Your task to perform on an android device: stop showing notifications on the lock screen Image 0: 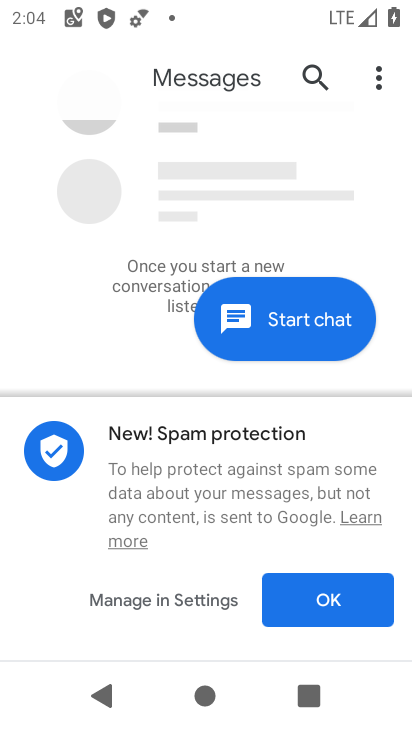
Step 0: press home button
Your task to perform on an android device: stop showing notifications on the lock screen Image 1: 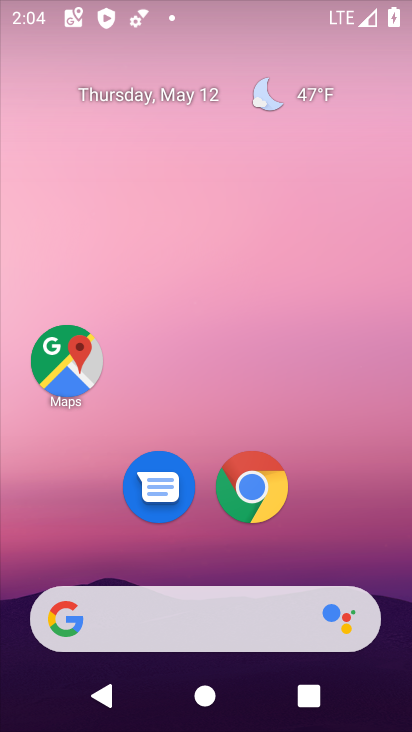
Step 1: drag from (334, 566) to (256, 117)
Your task to perform on an android device: stop showing notifications on the lock screen Image 2: 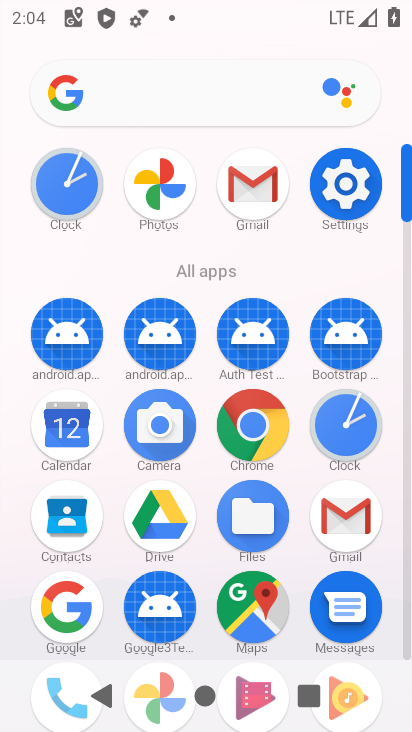
Step 2: click (352, 181)
Your task to perform on an android device: stop showing notifications on the lock screen Image 3: 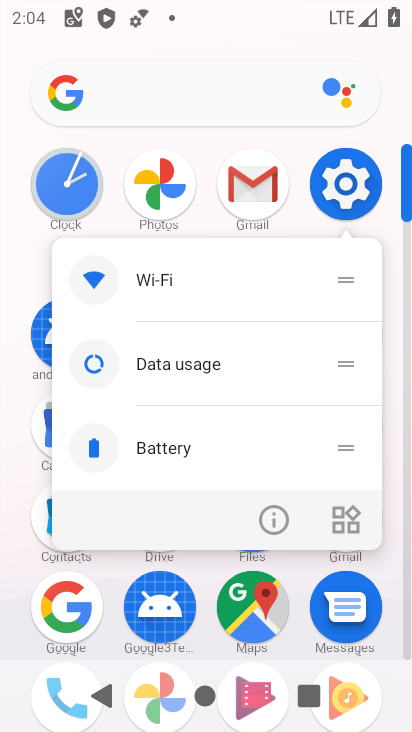
Step 3: click (336, 179)
Your task to perform on an android device: stop showing notifications on the lock screen Image 4: 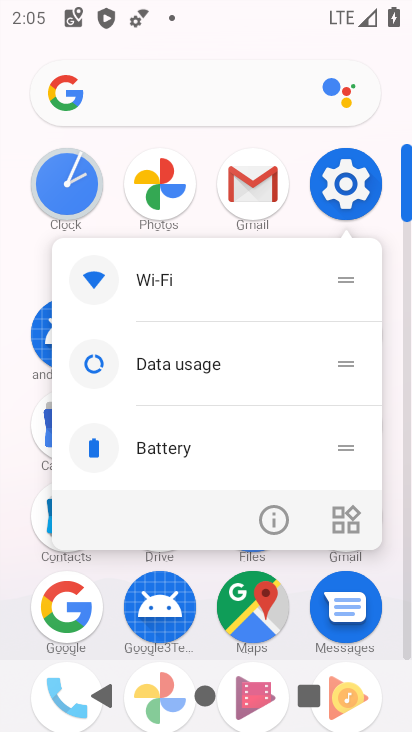
Step 4: click (342, 181)
Your task to perform on an android device: stop showing notifications on the lock screen Image 5: 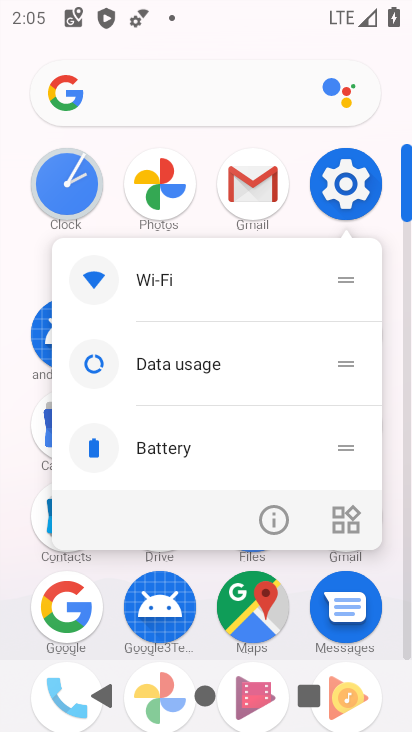
Step 5: click (289, 154)
Your task to perform on an android device: stop showing notifications on the lock screen Image 6: 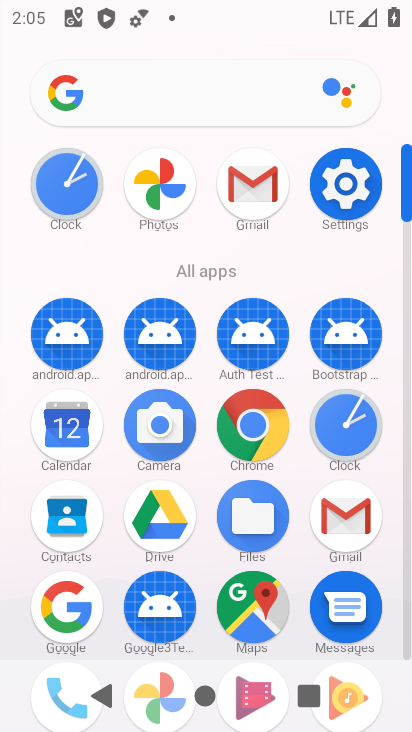
Step 6: click (347, 174)
Your task to perform on an android device: stop showing notifications on the lock screen Image 7: 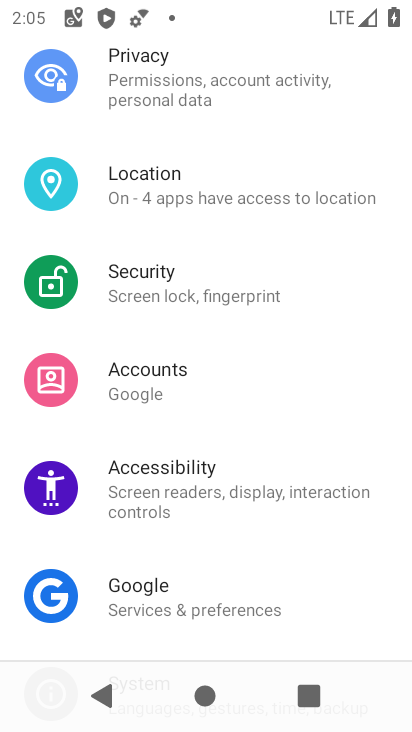
Step 7: drag from (196, 386) to (138, 216)
Your task to perform on an android device: stop showing notifications on the lock screen Image 8: 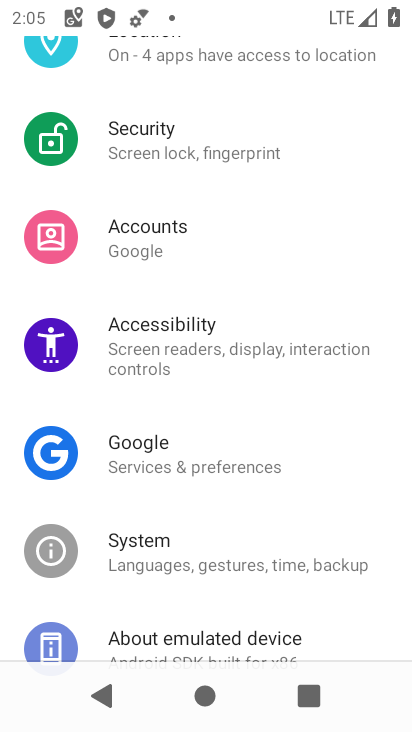
Step 8: drag from (131, 217) to (97, 273)
Your task to perform on an android device: stop showing notifications on the lock screen Image 9: 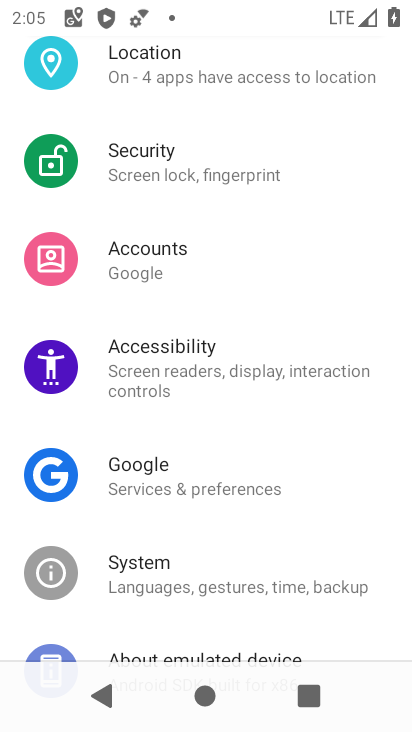
Step 9: drag from (184, 217) to (331, 584)
Your task to perform on an android device: stop showing notifications on the lock screen Image 10: 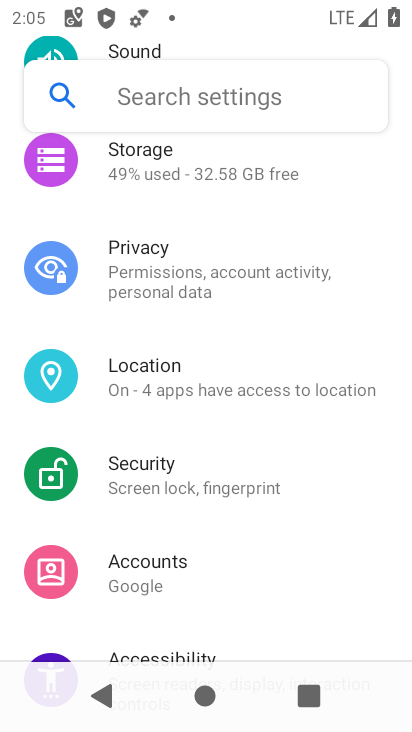
Step 10: drag from (194, 205) to (355, 663)
Your task to perform on an android device: stop showing notifications on the lock screen Image 11: 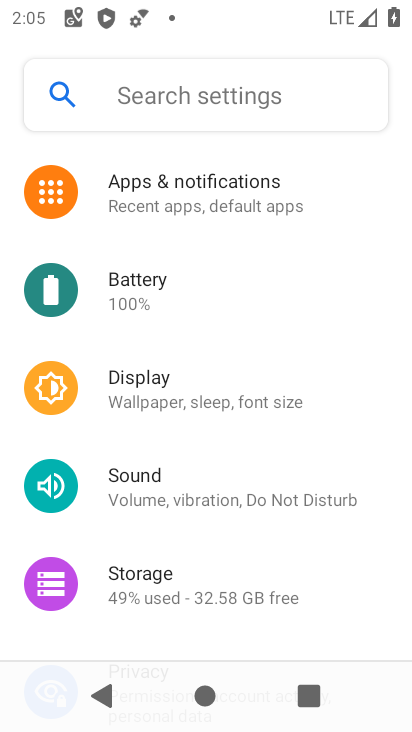
Step 11: click (175, 197)
Your task to perform on an android device: stop showing notifications on the lock screen Image 12: 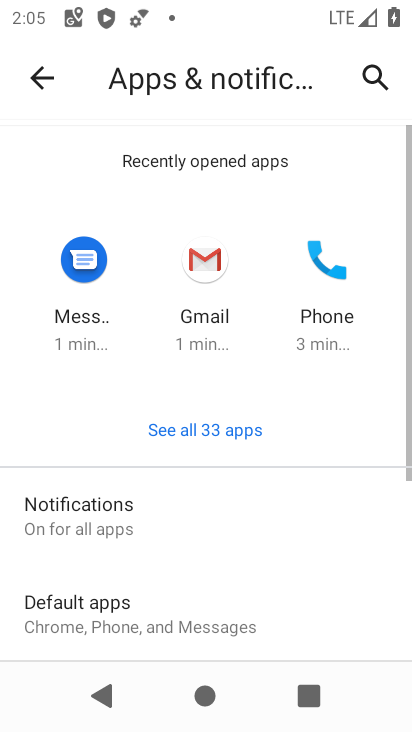
Step 12: click (159, 506)
Your task to perform on an android device: stop showing notifications on the lock screen Image 13: 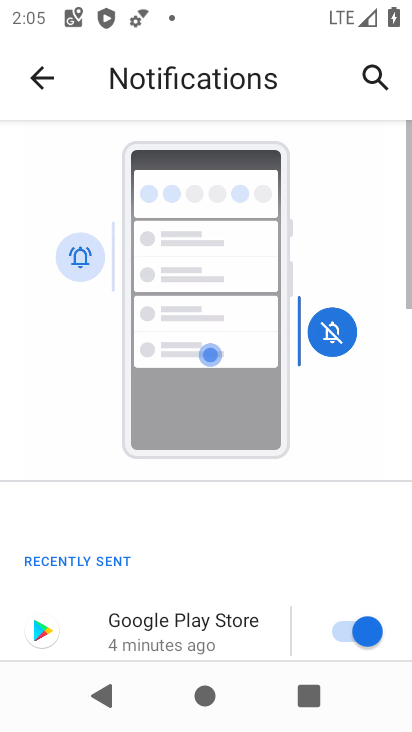
Step 13: drag from (219, 580) to (196, 135)
Your task to perform on an android device: stop showing notifications on the lock screen Image 14: 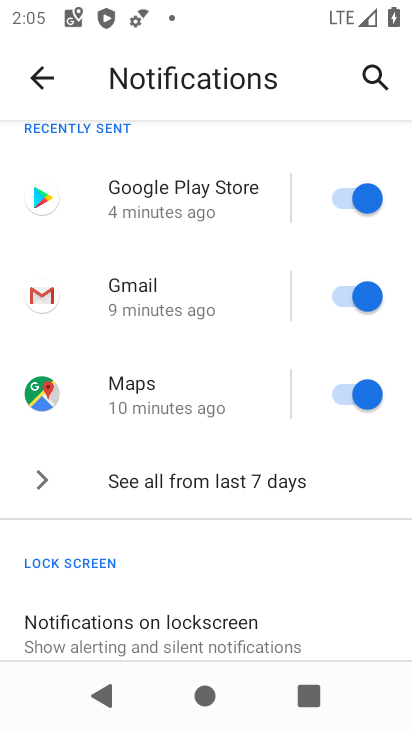
Step 14: click (203, 647)
Your task to perform on an android device: stop showing notifications on the lock screen Image 15: 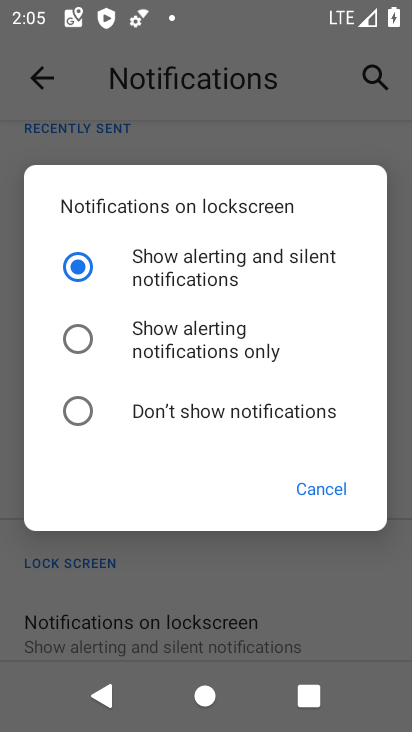
Step 15: click (202, 329)
Your task to perform on an android device: stop showing notifications on the lock screen Image 16: 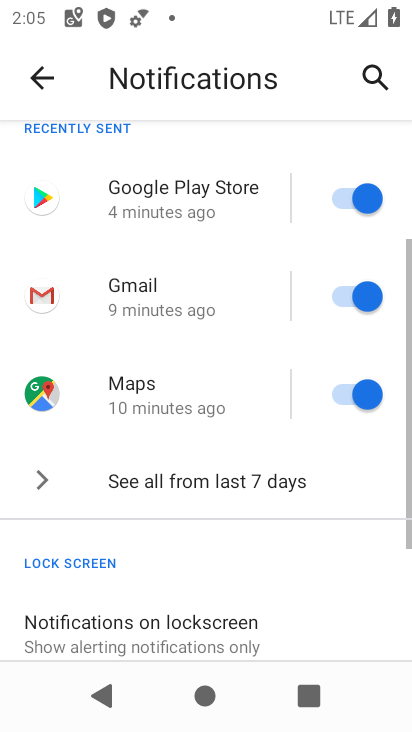
Step 16: task complete